Your task to perform on an android device: turn on location history Image 0: 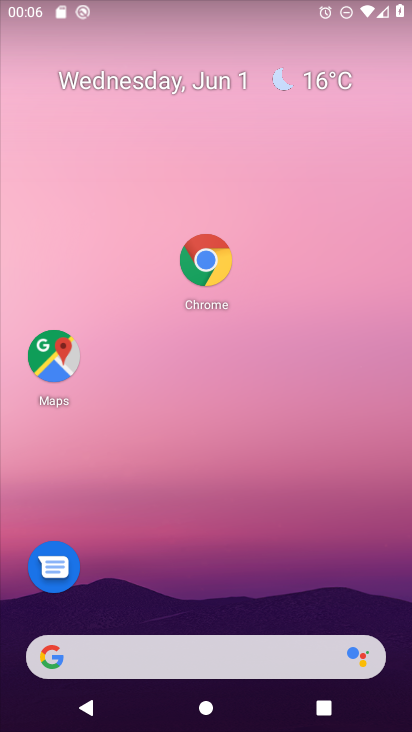
Step 0: drag from (267, 624) to (312, 26)
Your task to perform on an android device: turn on location history Image 1: 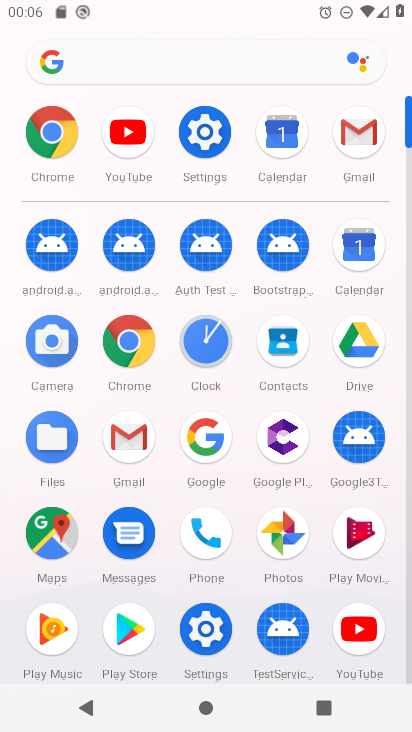
Step 1: click (214, 116)
Your task to perform on an android device: turn on location history Image 2: 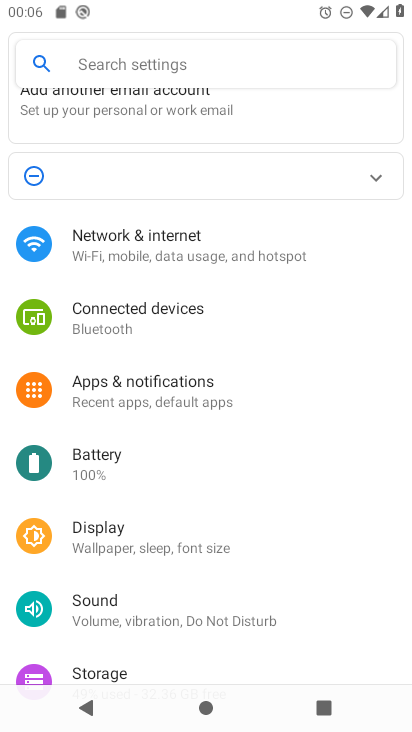
Step 2: drag from (83, 600) to (225, 26)
Your task to perform on an android device: turn on location history Image 3: 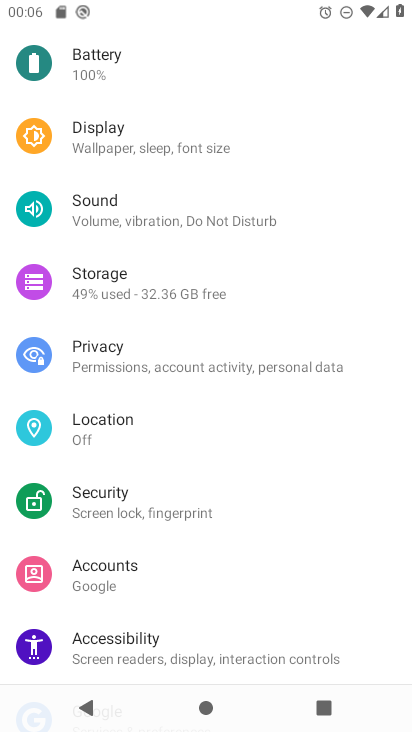
Step 3: click (156, 431)
Your task to perform on an android device: turn on location history Image 4: 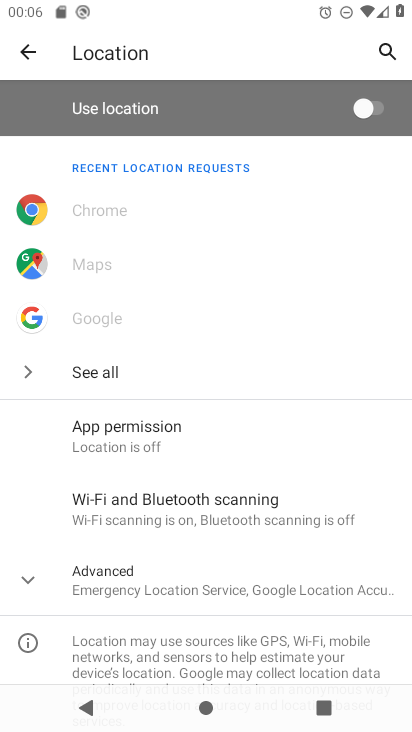
Step 4: click (148, 577)
Your task to perform on an android device: turn on location history Image 5: 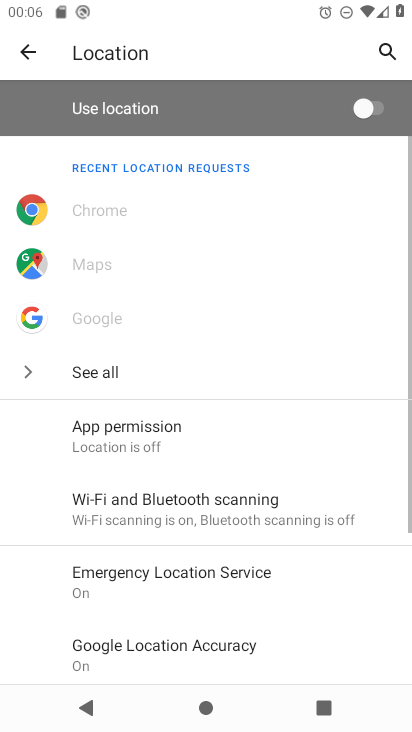
Step 5: drag from (166, 642) to (220, 290)
Your task to perform on an android device: turn on location history Image 6: 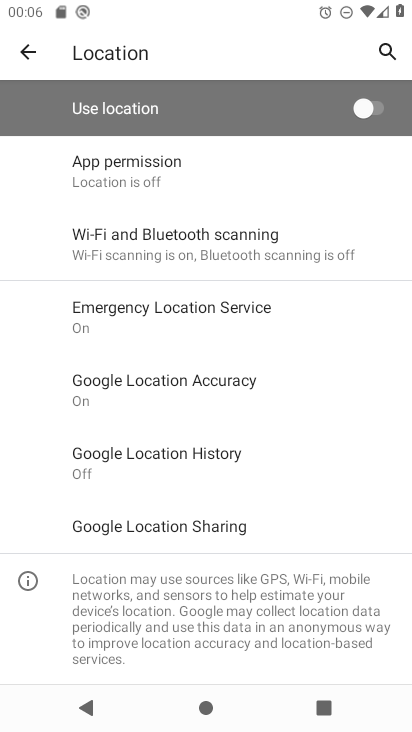
Step 6: click (160, 463)
Your task to perform on an android device: turn on location history Image 7: 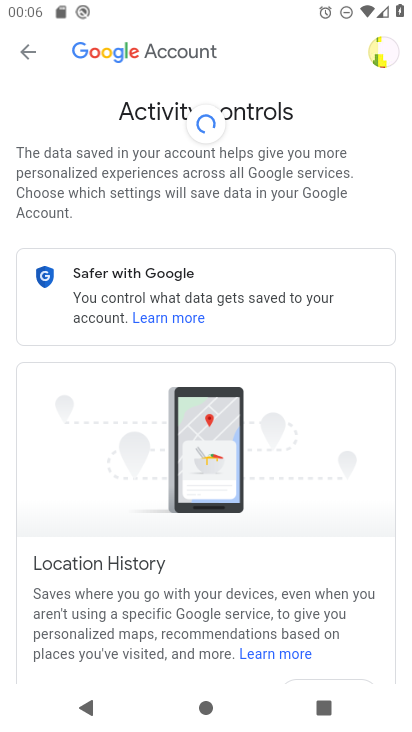
Step 7: task complete